Your task to perform on an android device: Turn on the flashlight Image 0: 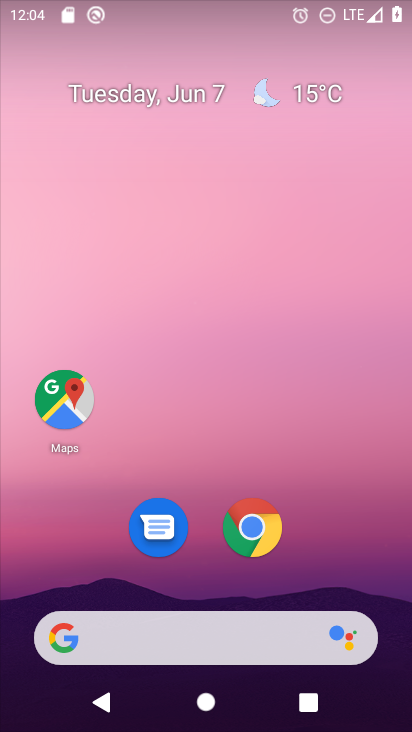
Step 0: drag from (216, 23) to (229, 410)
Your task to perform on an android device: Turn on the flashlight Image 1: 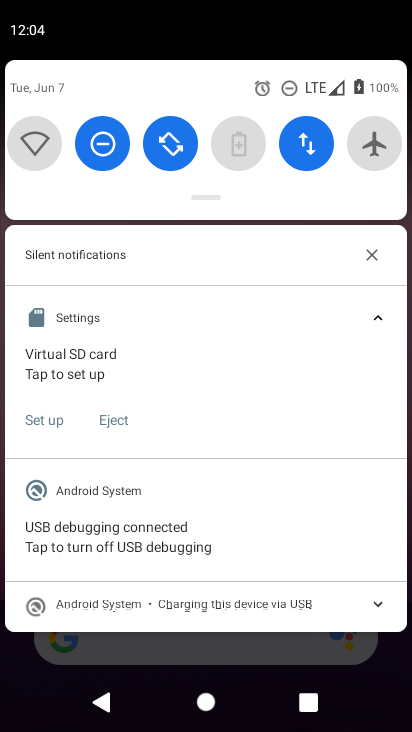
Step 1: drag from (204, 99) to (212, 413)
Your task to perform on an android device: Turn on the flashlight Image 2: 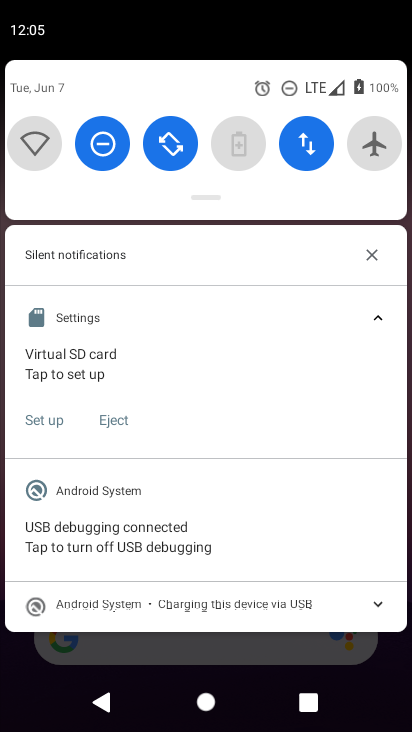
Step 2: drag from (200, 131) to (221, 418)
Your task to perform on an android device: Turn on the flashlight Image 3: 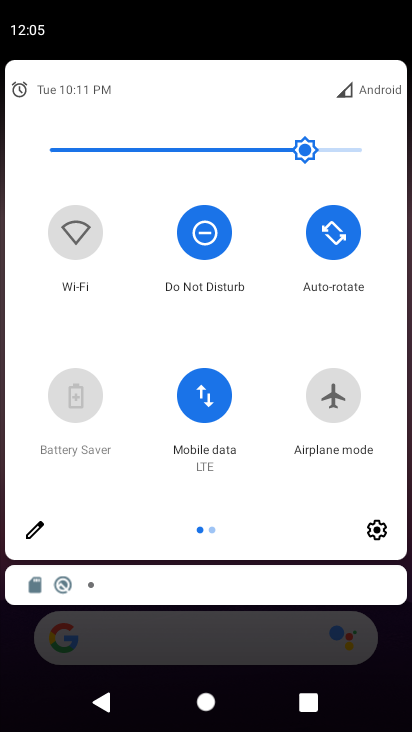
Step 3: click (25, 546)
Your task to perform on an android device: Turn on the flashlight Image 4: 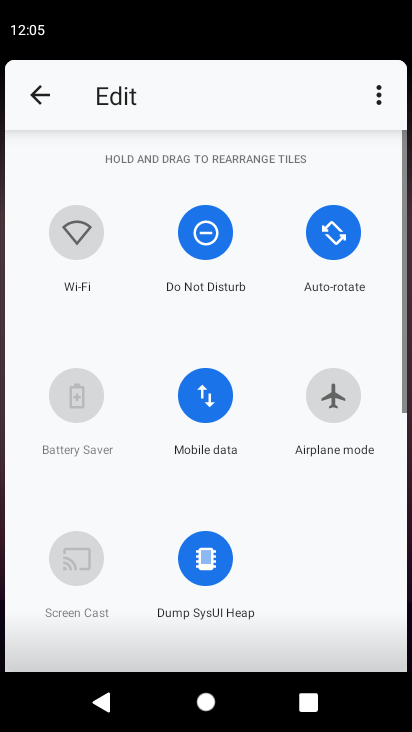
Step 4: task complete